Your task to perform on an android device: Open accessibility settings Image 0: 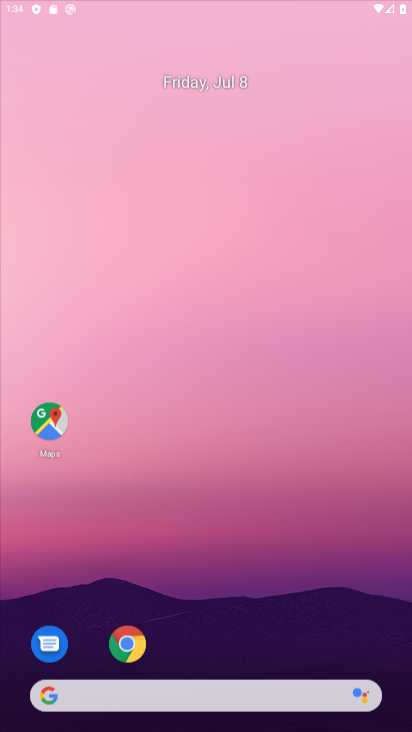
Step 0: drag from (277, 370) to (397, 62)
Your task to perform on an android device: Open accessibility settings Image 1: 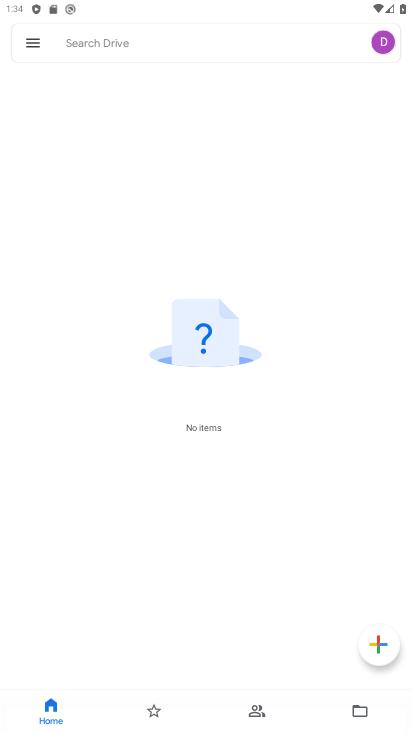
Step 1: press home button
Your task to perform on an android device: Open accessibility settings Image 2: 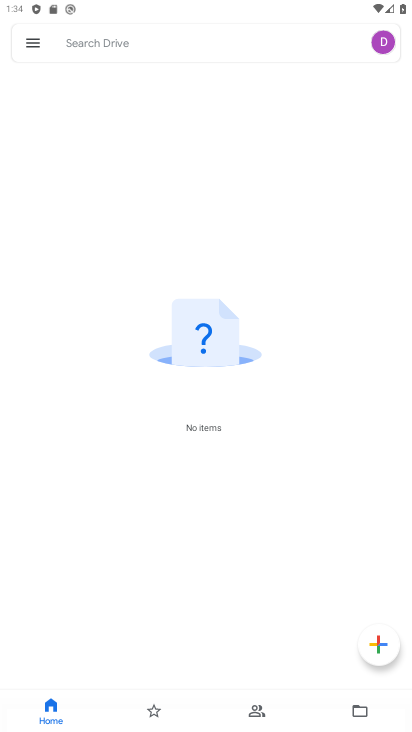
Step 2: click (397, 443)
Your task to perform on an android device: Open accessibility settings Image 3: 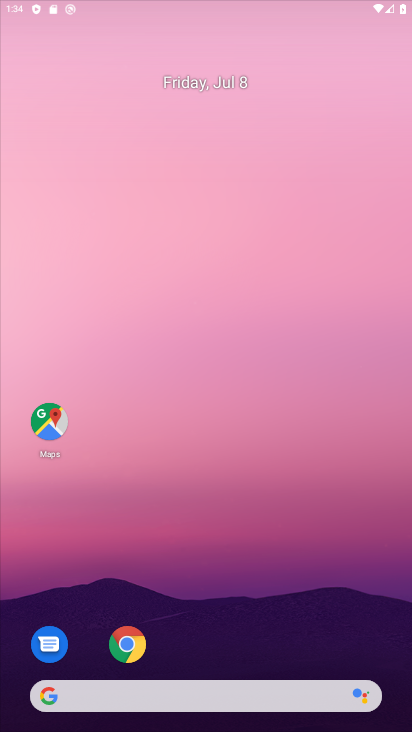
Step 3: drag from (224, 643) to (351, 23)
Your task to perform on an android device: Open accessibility settings Image 4: 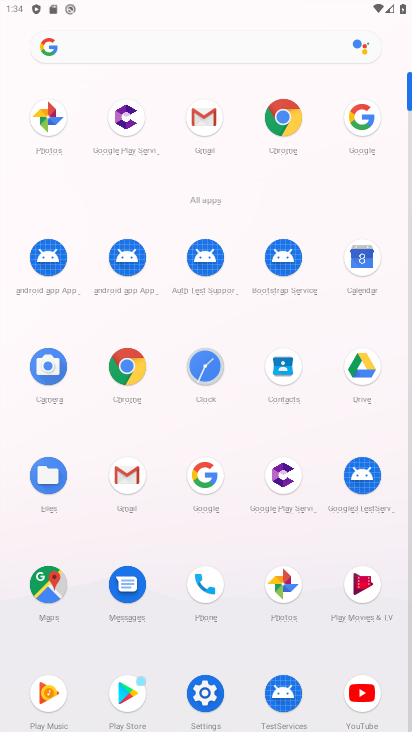
Step 4: click (204, 691)
Your task to perform on an android device: Open accessibility settings Image 5: 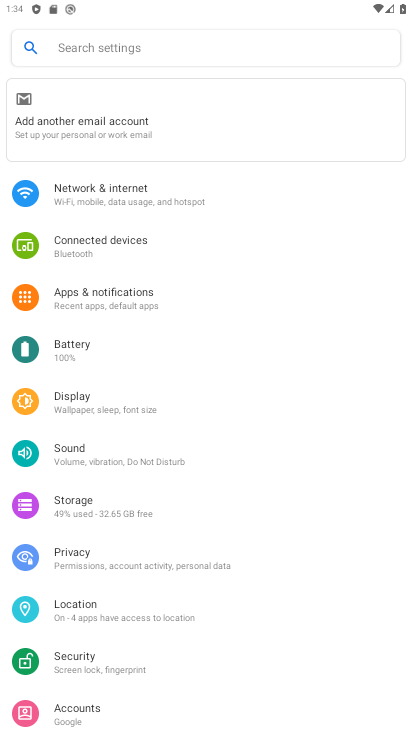
Step 5: drag from (116, 658) to (151, 291)
Your task to perform on an android device: Open accessibility settings Image 6: 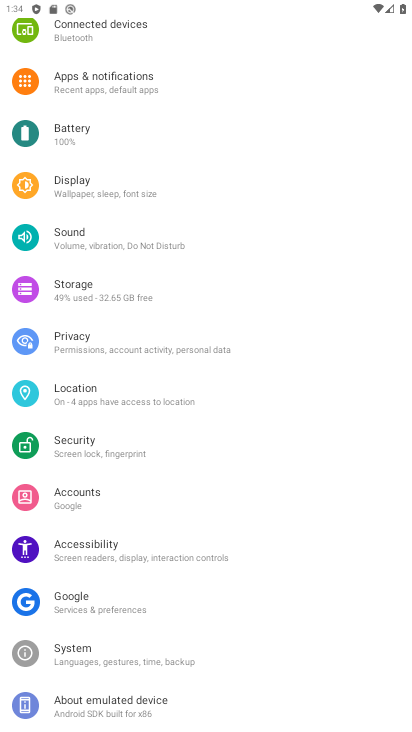
Step 6: click (84, 545)
Your task to perform on an android device: Open accessibility settings Image 7: 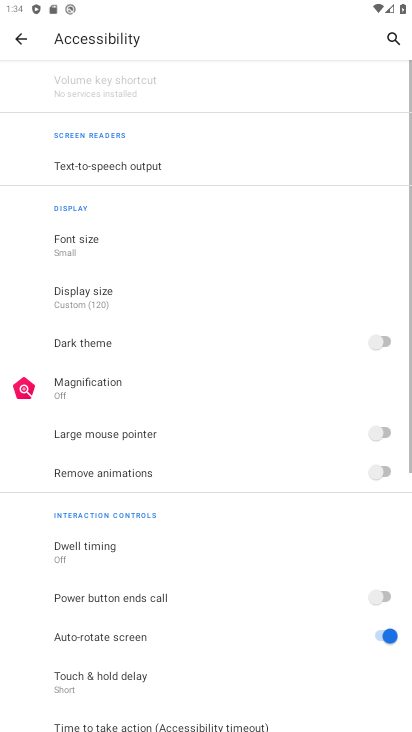
Step 7: task complete